Your task to perform on an android device: Is it going to rain this weekend? Image 0: 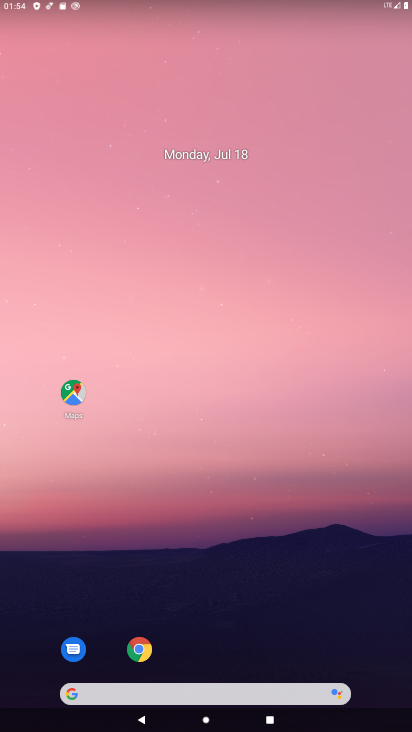
Step 0: click (262, 692)
Your task to perform on an android device: Is it going to rain this weekend? Image 1: 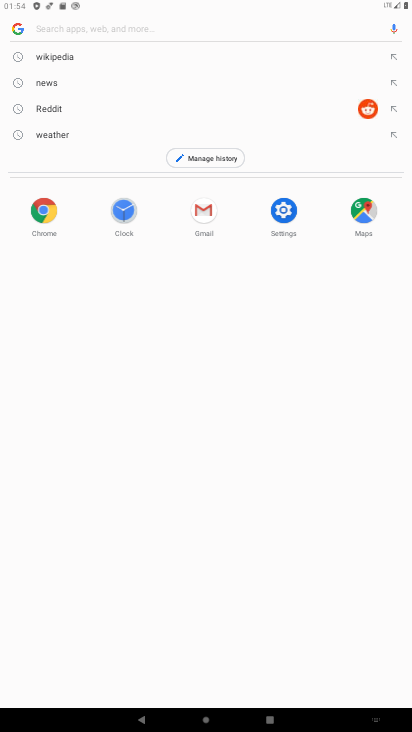
Step 1: type "Is it going to rain this weekend?"
Your task to perform on an android device: Is it going to rain this weekend? Image 2: 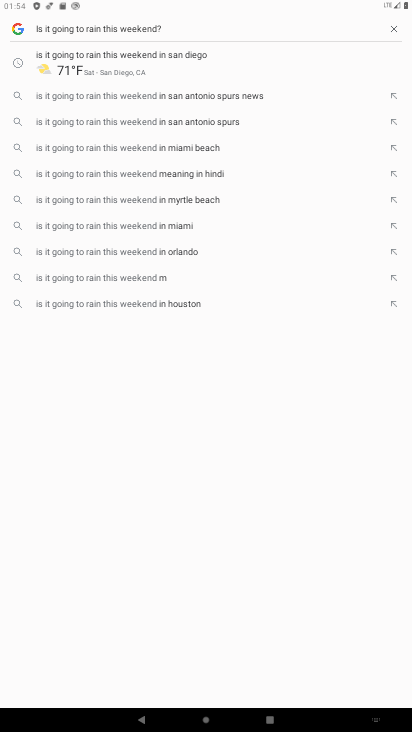
Step 2: press enter
Your task to perform on an android device: Is it going to rain this weekend? Image 3: 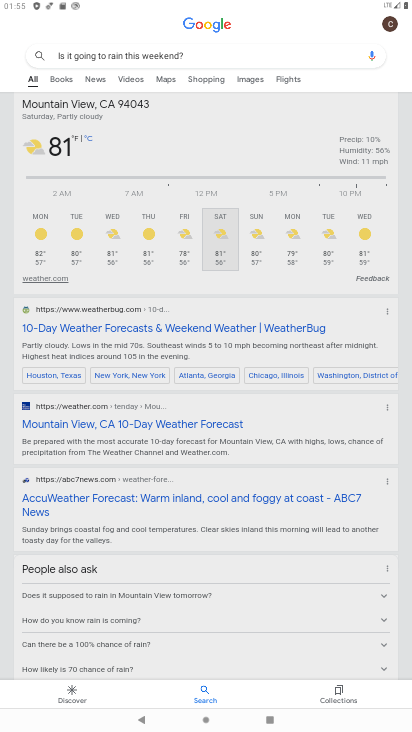
Step 3: task complete